Your task to perform on an android device: Show the shopping cart on walmart.com. Search for "dell xps" on walmart.com, select the first entry, and add it to the cart. Image 0: 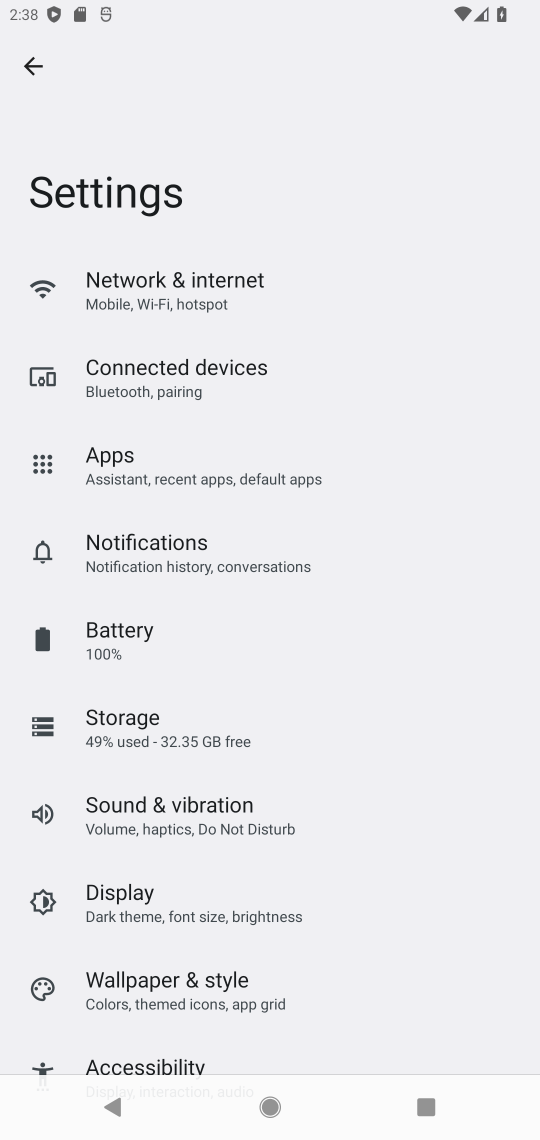
Step 0: press home button
Your task to perform on an android device: Show the shopping cart on walmart.com. Search for "dell xps" on walmart.com, select the first entry, and add it to the cart. Image 1: 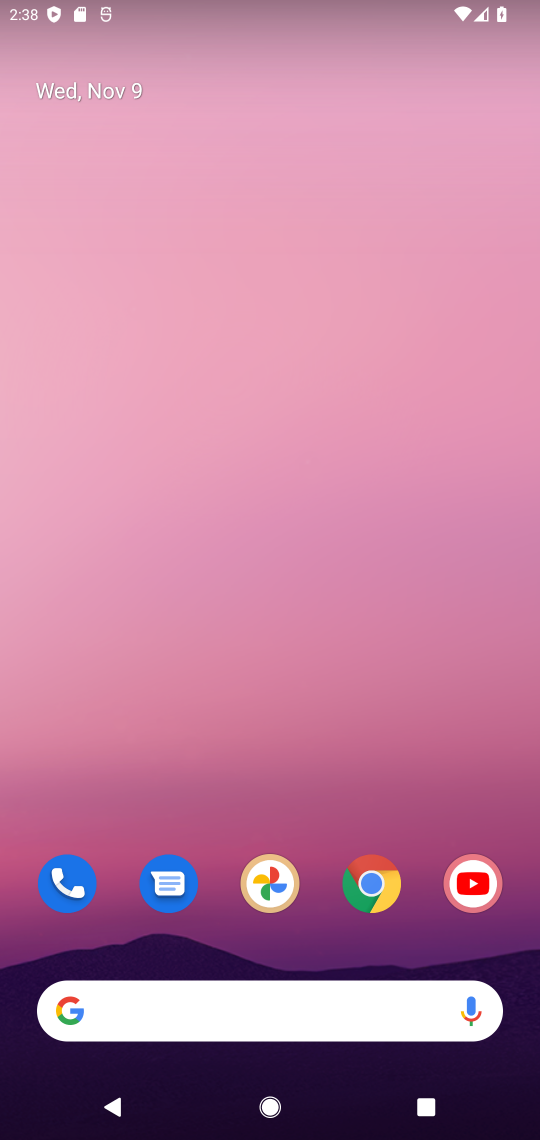
Step 1: click (377, 880)
Your task to perform on an android device: Show the shopping cart on walmart.com. Search for "dell xps" on walmart.com, select the first entry, and add it to the cart. Image 2: 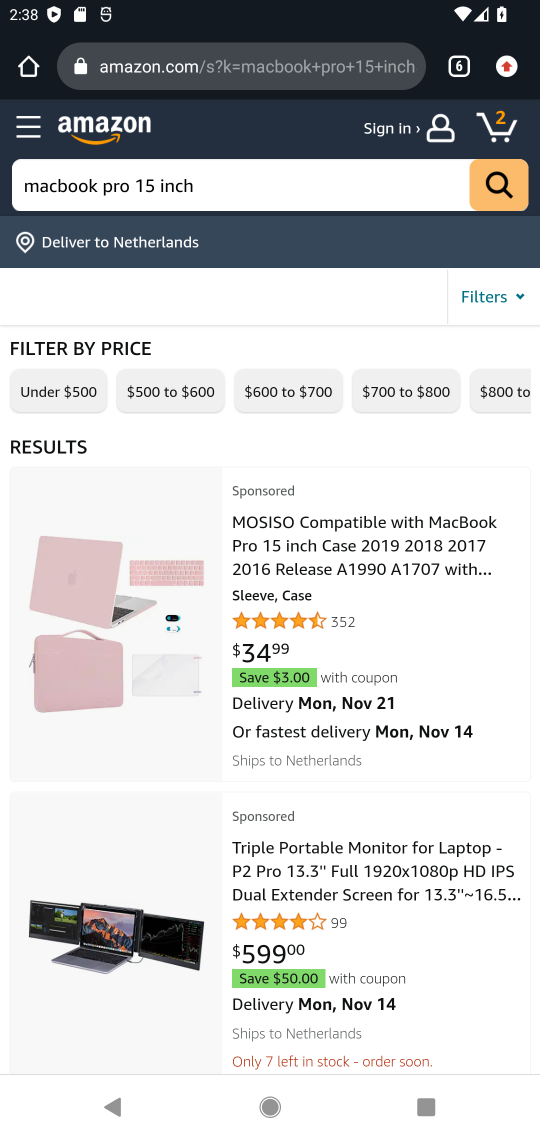
Step 2: click (457, 61)
Your task to perform on an android device: Show the shopping cart on walmart.com. Search for "dell xps" on walmart.com, select the first entry, and add it to the cart. Image 3: 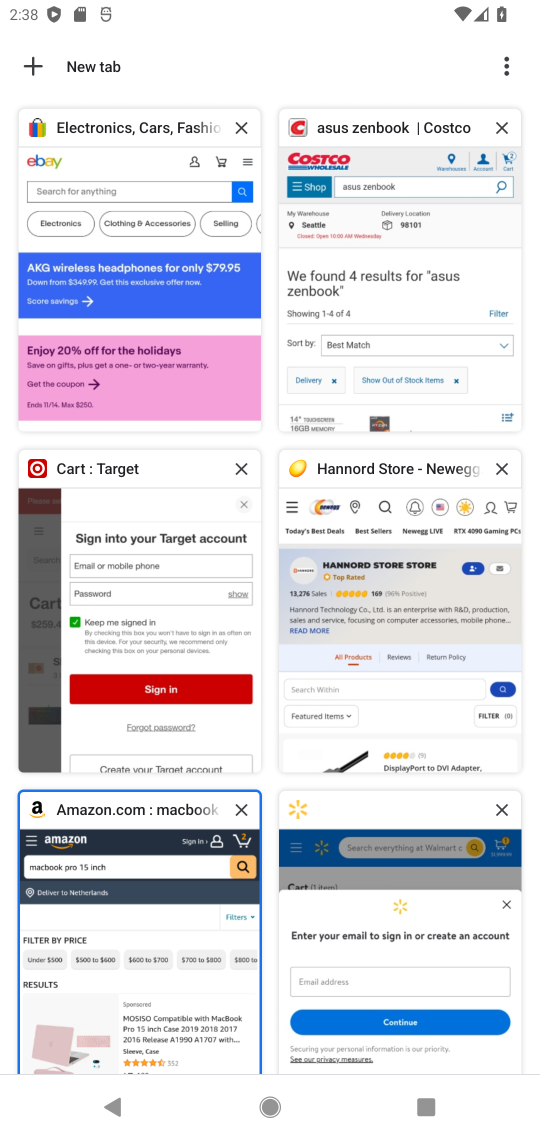
Step 3: click (340, 837)
Your task to perform on an android device: Show the shopping cart on walmart.com. Search for "dell xps" on walmart.com, select the first entry, and add it to the cart. Image 4: 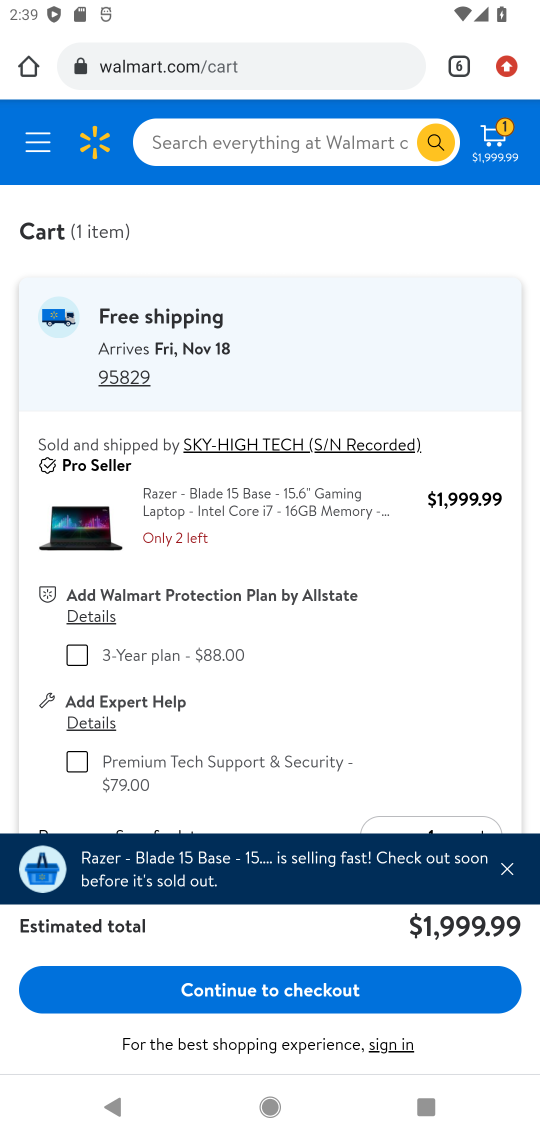
Step 4: click (199, 140)
Your task to perform on an android device: Show the shopping cart on walmart.com. Search for "dell xps" on walmart.com, select the first entry, and add it to the cart. Image 5: 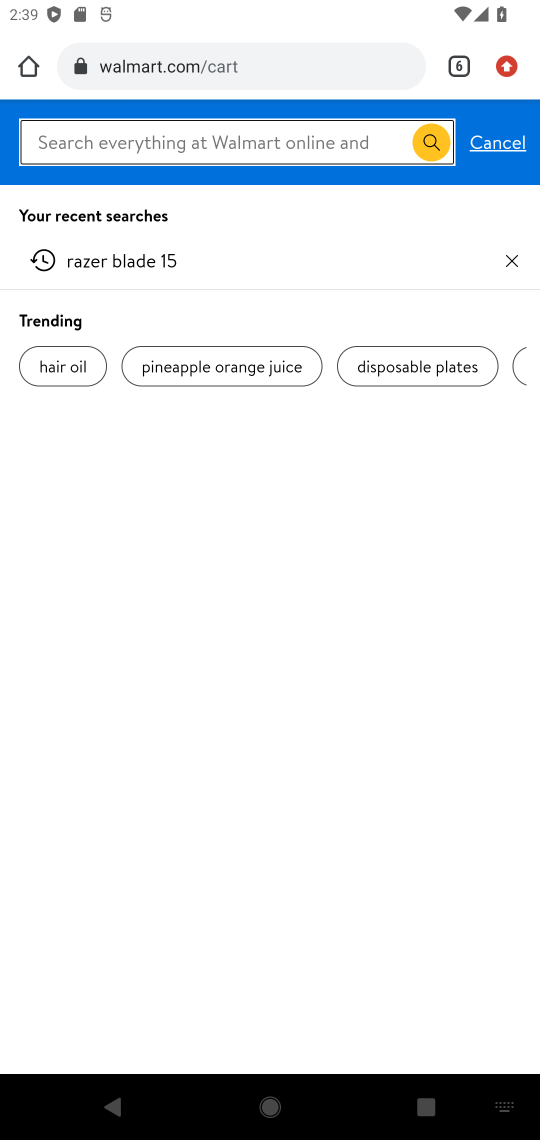
Step 5: type "dell xps"
Your task to perform on an android device: Show the shopping cart on walmart.com. Search for "dell xps" on walmart.com, select the first entry, and add it to the cart. Image 6: 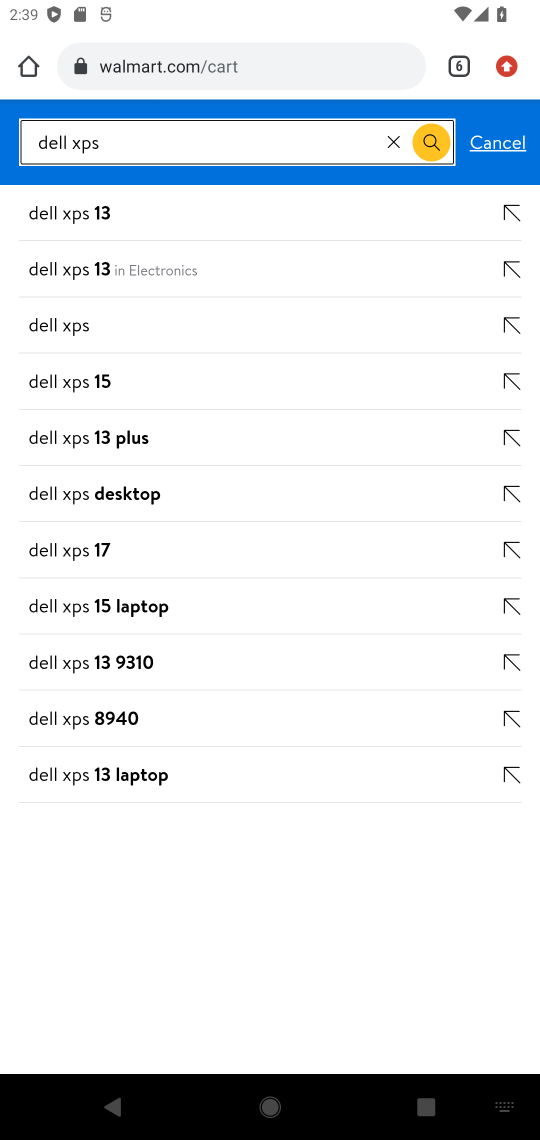
Step 6: click (114, 275)
Your task to perform on an android device: Show the shopping cart on walmart.com. Search for "dell xps" on walmart.com, select the first entry, and add it to the cart. Image 7: 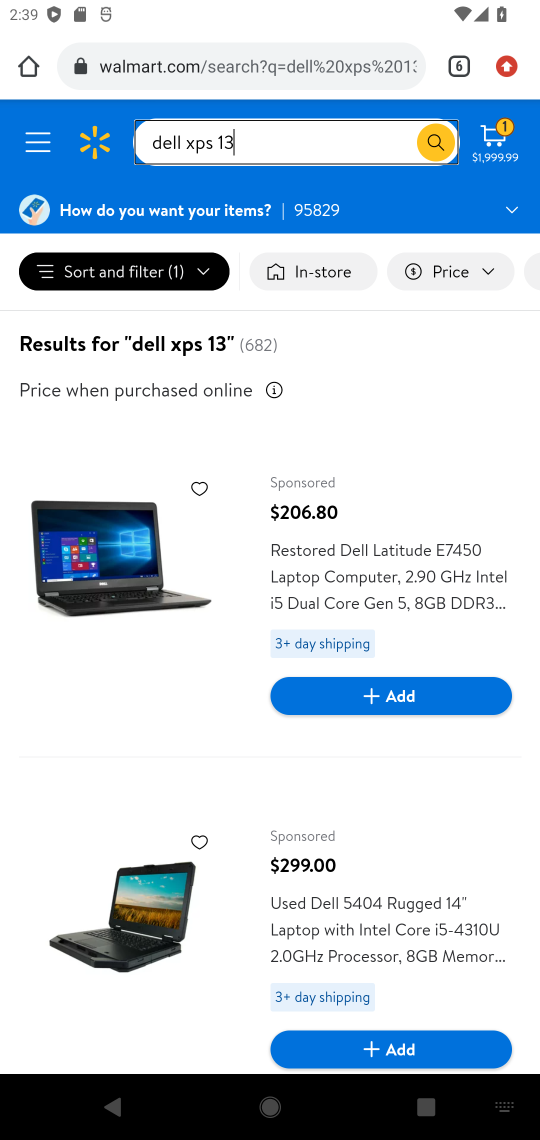
Step 7: drag from (309, 999) to (494, 56)
Your task to perform on an android device: Show the shopping cart on walmart.com. Search for "dell xps" on walmart.com, select the first entry, and add it to the cart. Image 8: 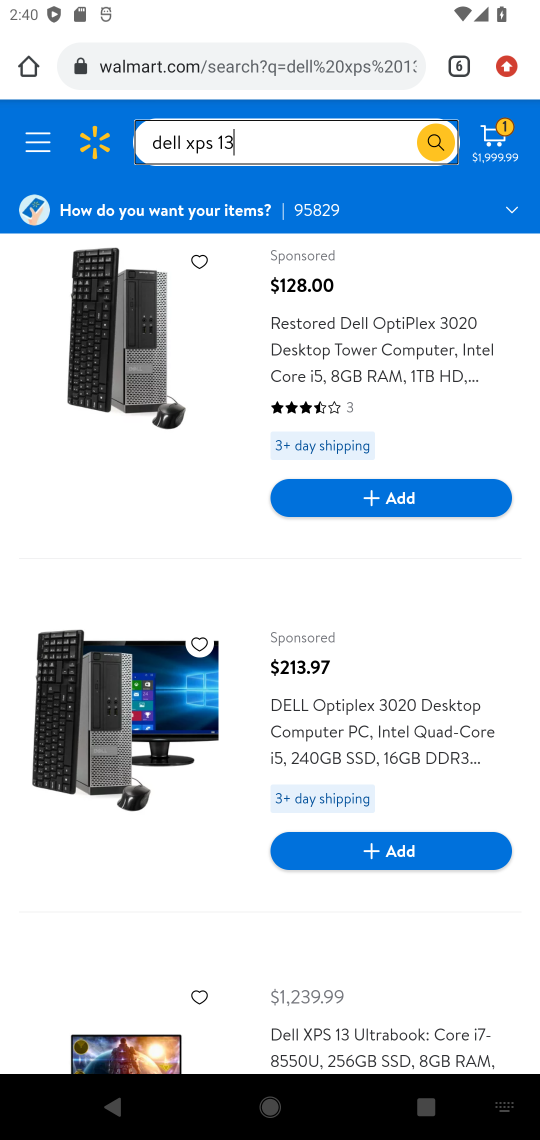
Step 8: drag from (349, 976) to (334, 588)
Your task to perform on an android device: Show the shopping cart on walmart.com. Search for "dell xps" on walmart.com, select the first entry, and add it to the cart. Image 9: 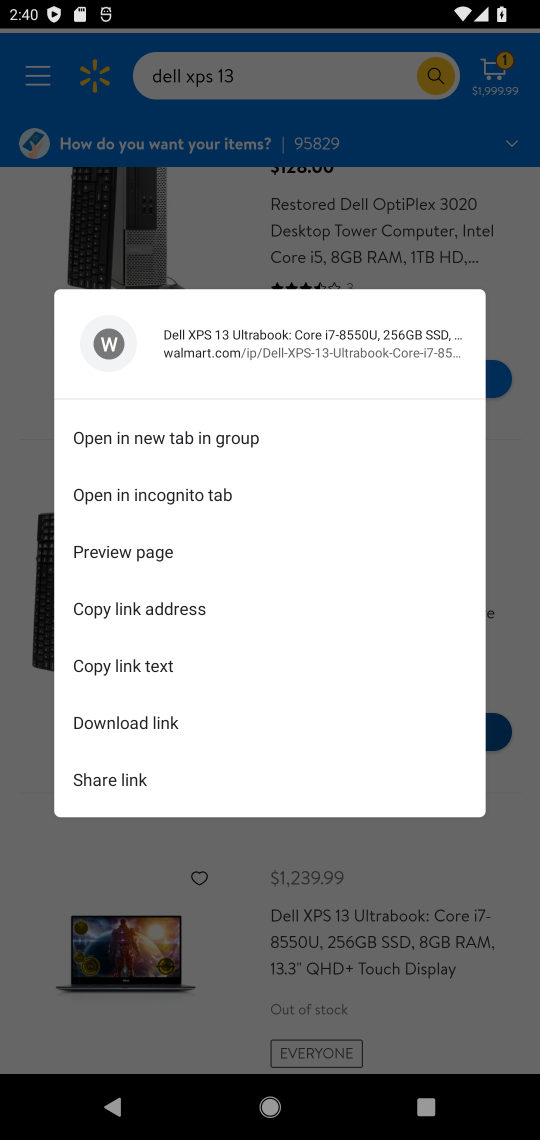
Step 9: click (189, 1003)
Your task to perform on an android device: Show the shopping cart on walmart.com. Search for "dell xps" on walmart.com, select the first entry, and add it to the cart. Image 10: 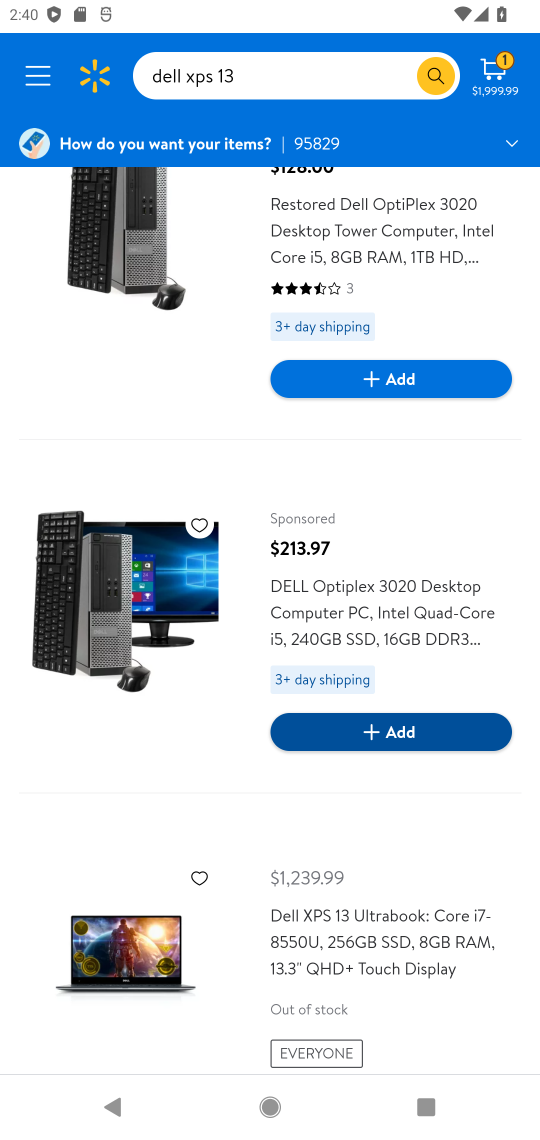
Step 10: drag from (429, 1022) to (532, 675)
Your task to perform on an android device: Show the shopping cart on walmart.com. Search for "dell xps" on walmart.com, select the first entry, and add it to the cart. Image 11: 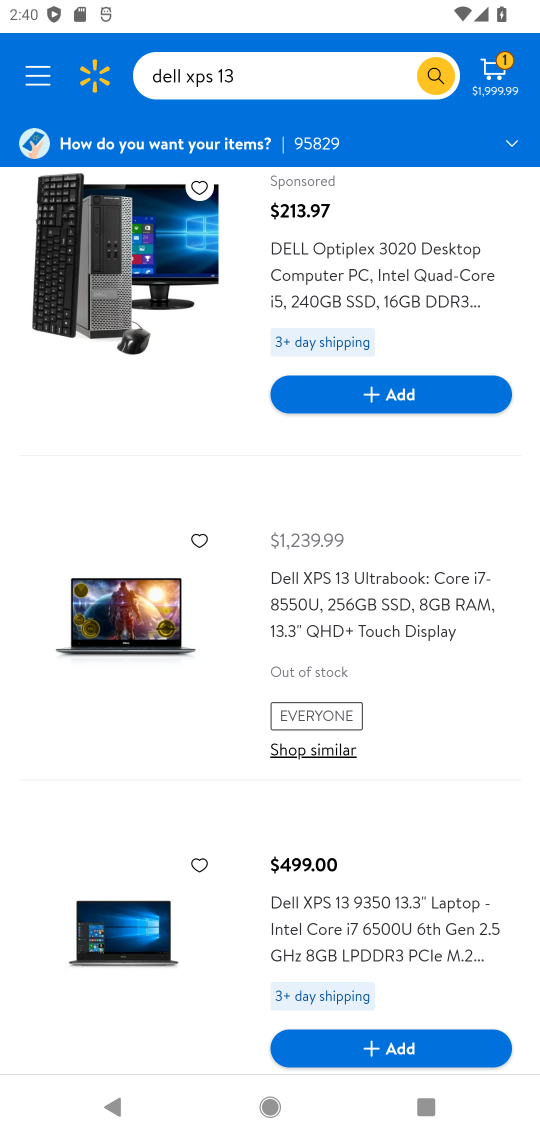
Step 11: click (400, 1045)
Your task to perform on an android device: Show the shopping cart on walmart.com. Search for "dell xps" on walmart.com, select the first entry, and add it to the cart. Image 12: 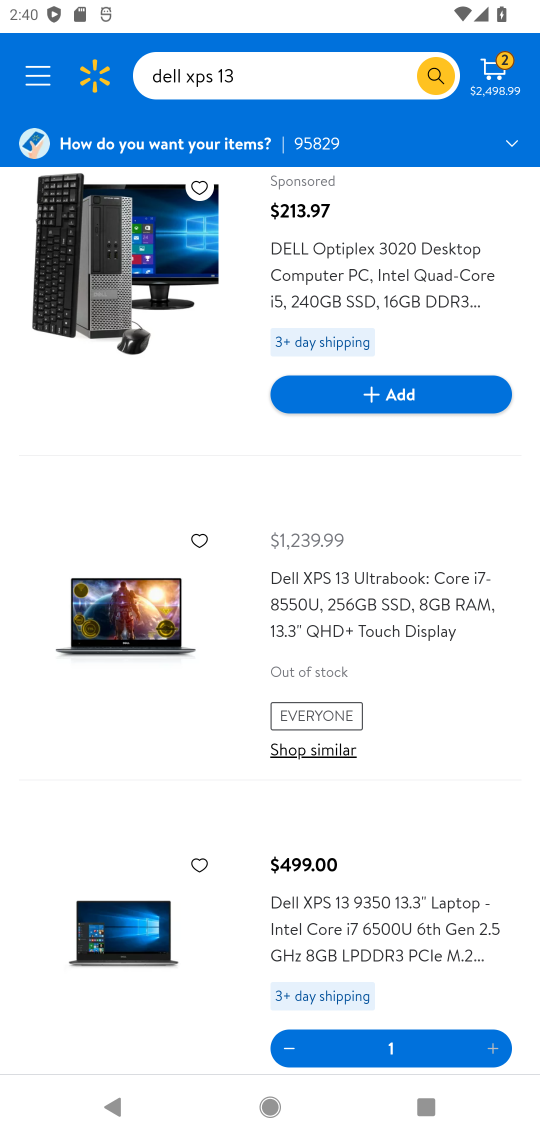
Step 12: task complete